Your task to perform on an android device: Show the shopping cart on target.com. Image 0: 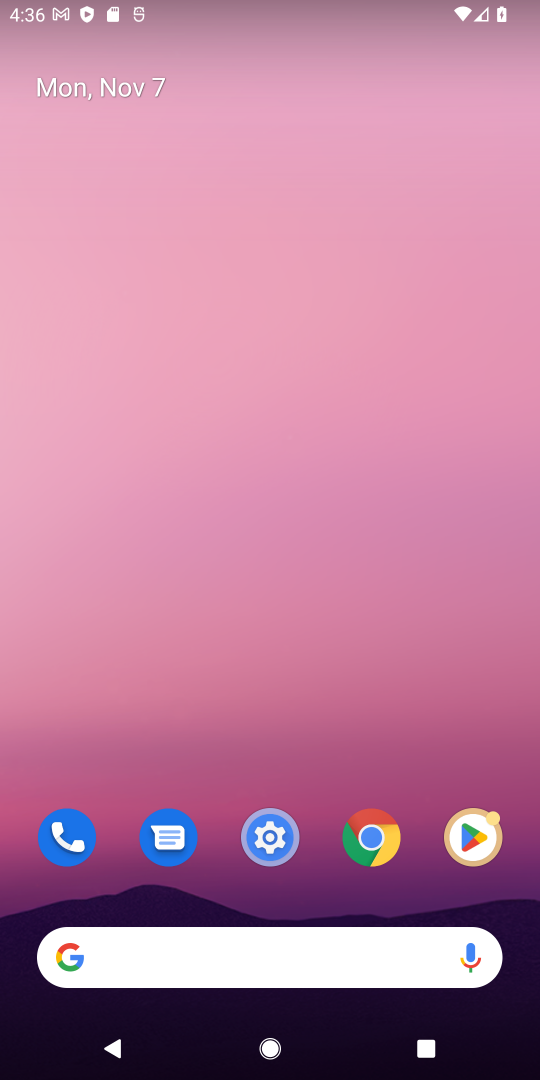
Step 0: click (375, 839)
Your task to perform on an android device: Show the shopping cart on target.com. Image 1: 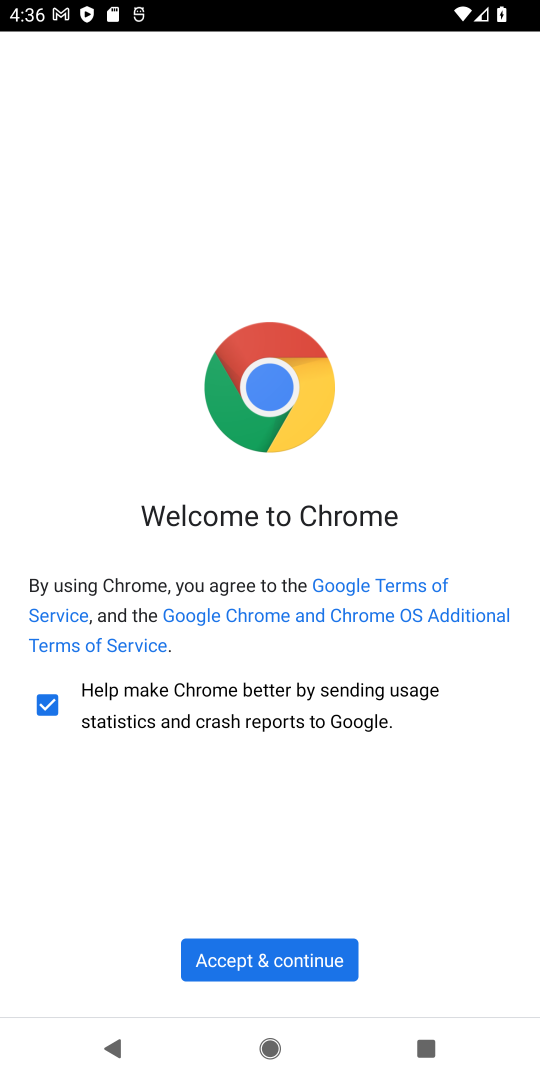
Step 1: click (295, 958)
Your task to perform on an android device: Show the shopping cart on target.com. Image 2: 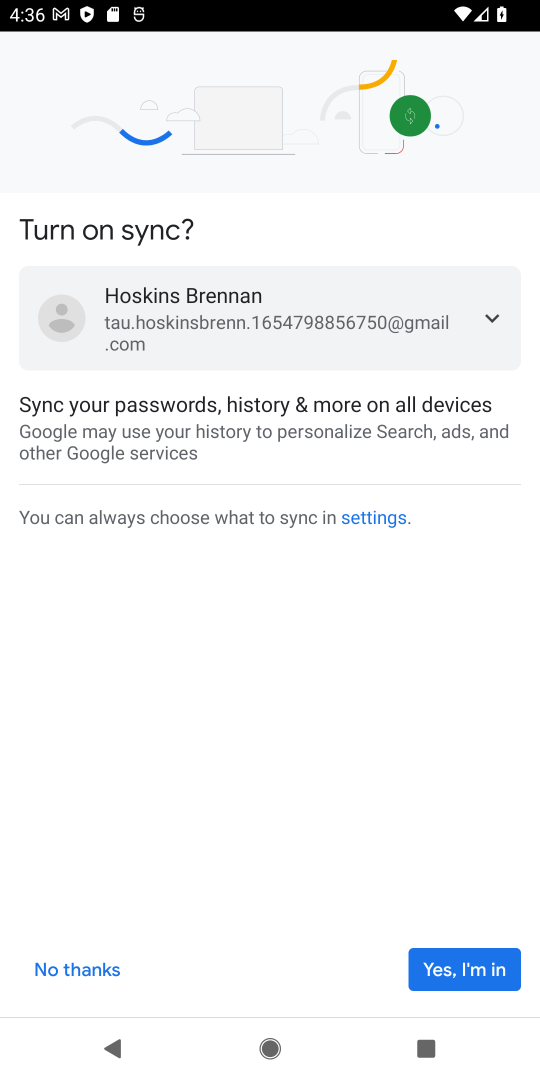
Step 2: click (458, 970)
Your task to perform on an android device: Show the shopping cart on target.com. Image 3: 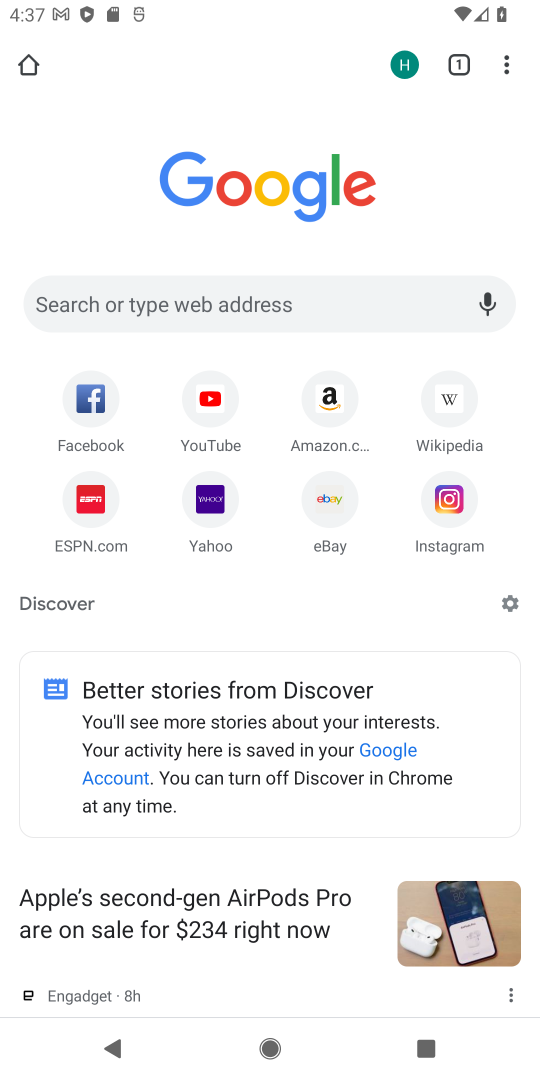
Step 3: click (264, 315)
Your task to perform on an android device: Show the shopping cart on target.com. Image 4: 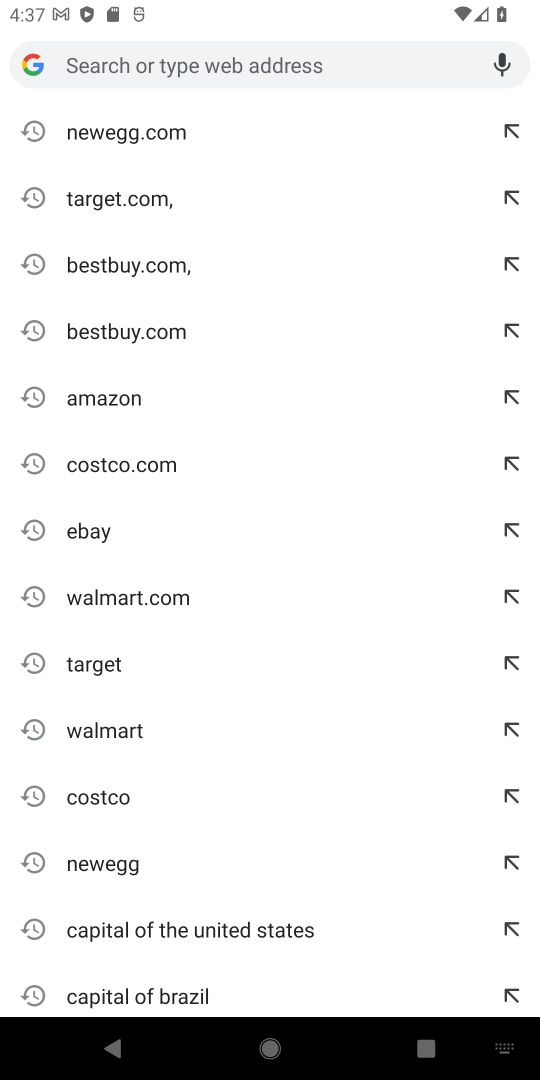
Step 4: type "target.com"
Your task to perform on an android device: Show the shopping cart on target.com. Image 5: 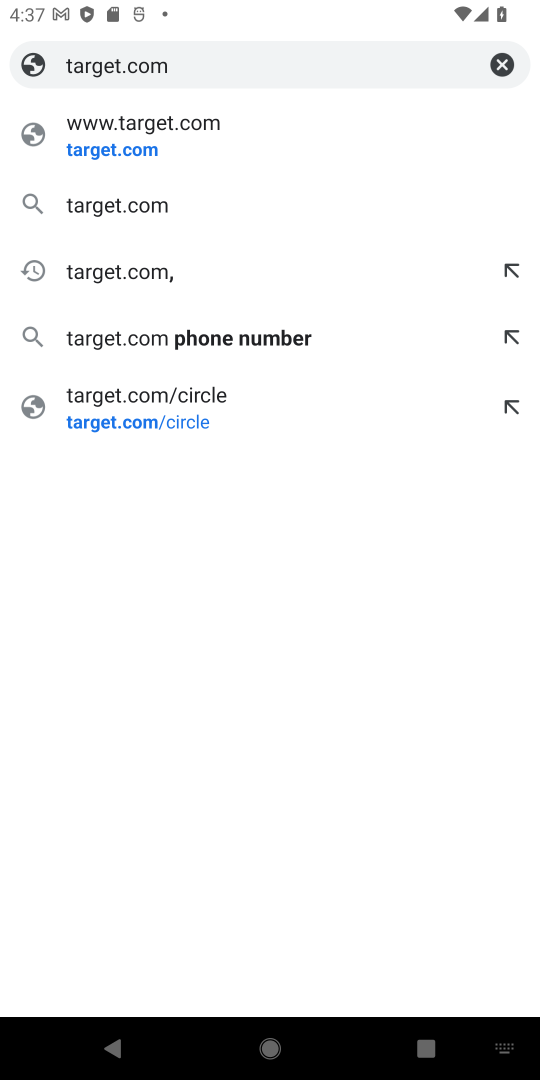
Step 5: click (209, 130)
Your task to perform on an android device: Show the shopping cart on target.com. Image 6: 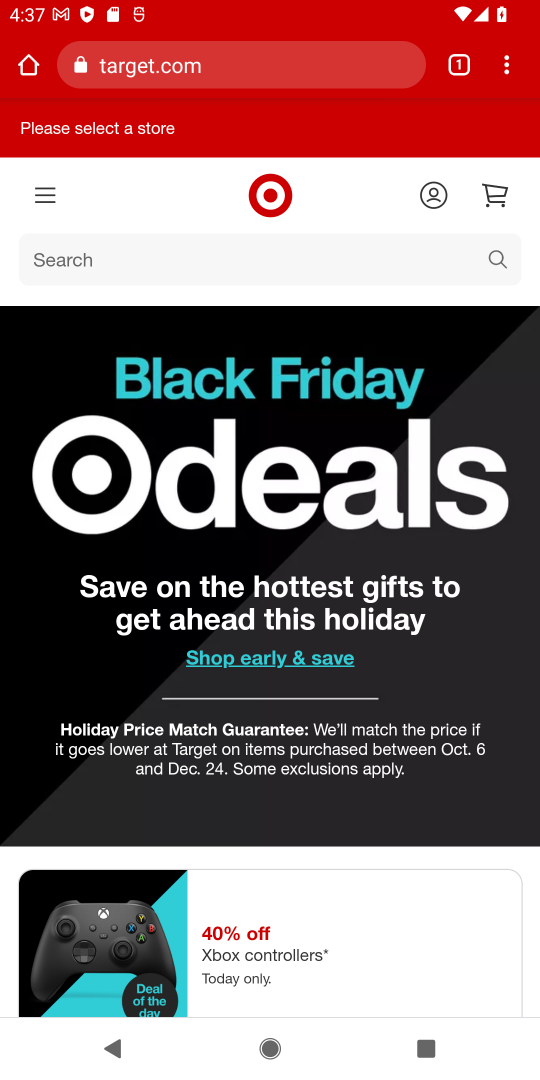
Step 6: click (505, 211)
Your task to perform on an android device: Show the shopping cart on target.com. Image 7: 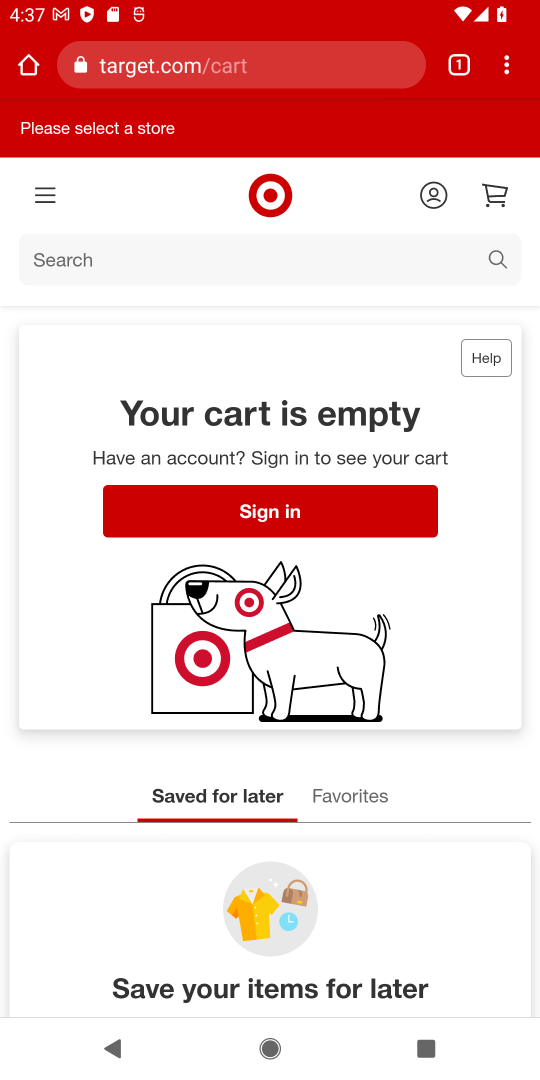
Step 7: task complete